Your task to perform on an android device: Go to Yahoo.com Image 0: 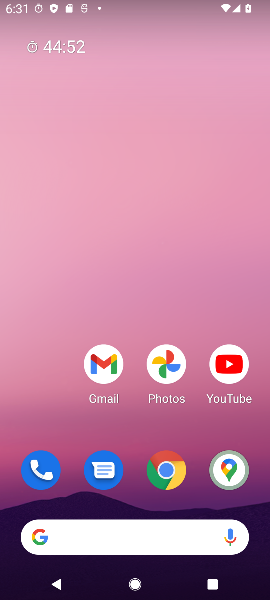
Step 0: drag from (142, 480) to (189, 1)
Your task to perform on an android device: Go to Yahoo.com Image 1: 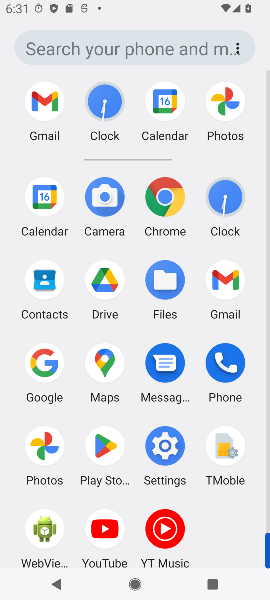
Step 1: click (166, 192)
Your task to perform on an android device: Go to Yahoo.com Image 2: 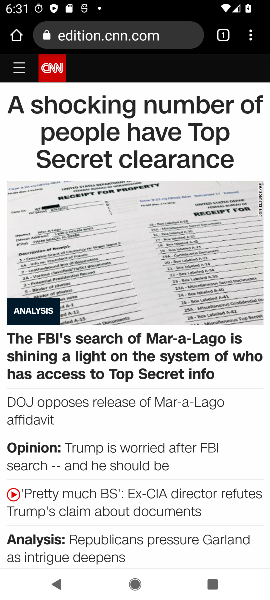
Step 2: click (125, 36)
Your task to perform on an android device: Go to Yahoo.com Image 3: 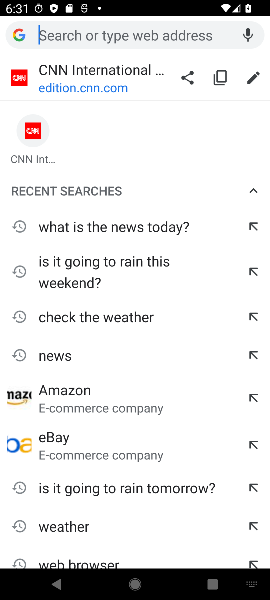
Step 3: type " Yahoo.com"
Your task to perform on an android device: Go to Yahoo.com Image 4: 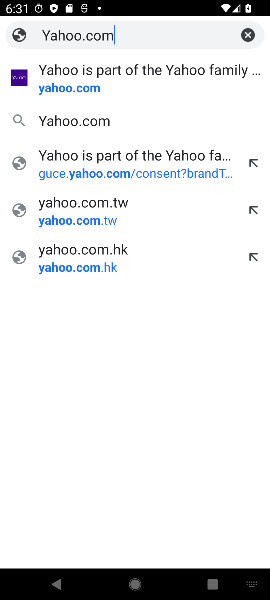
Step 4: click (70, 90)
Your task to perform on an android device: Go to Yahoo.com Image 5: 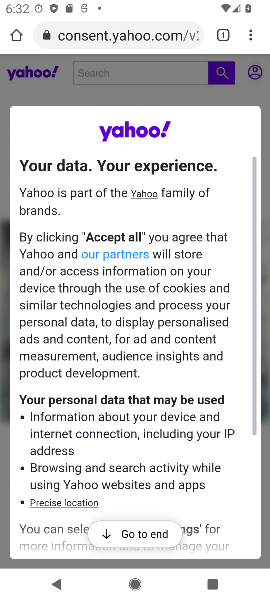
Step 5: drag from (176, 436) to (148, 4)
Your task to perform on an android device: Go to Yahoo.com Image 6: 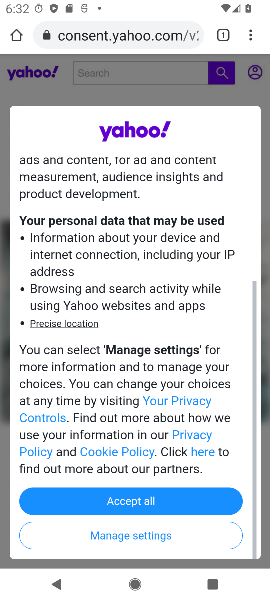
Step 6: click (123, 494)
Your task to perform on an android device: Go to Yahoo.com Image 7: 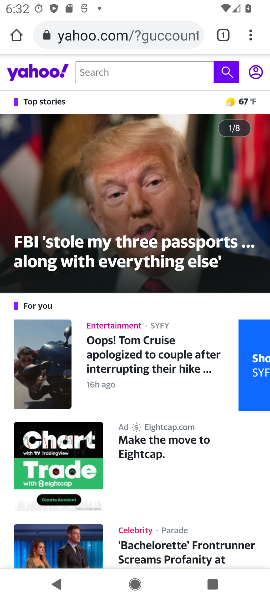
Step 7: task complete